Your task to perform on an android device: change the clock display to analog Image 0: 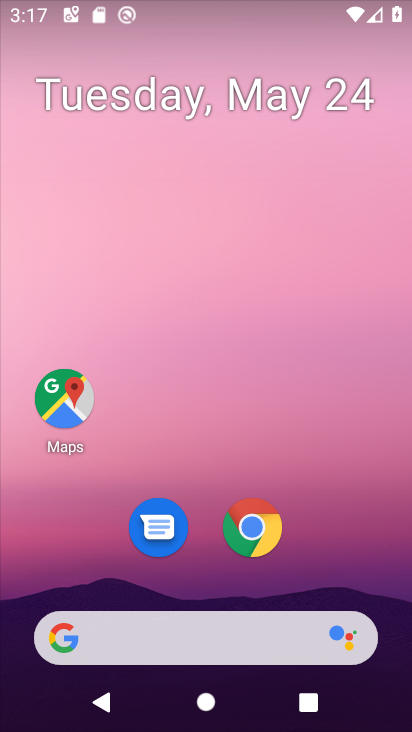
Step 0: drag from (346, 560) to (365, 5)
Your task to perform on an android device: change the clock display to analog Image 1: 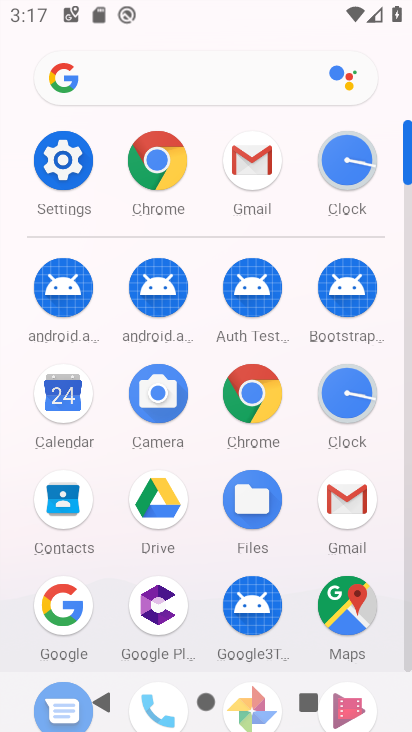
Step 1: click (349, 164)
Your task to perform on an android device: change the clock display to analog Image 2: 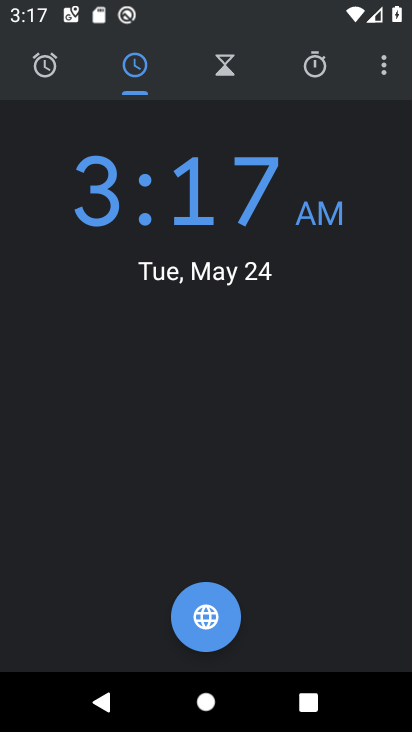
Step 2: click (389, 66)
Your task to perform on an android device: change the clock display to analog Image 3: 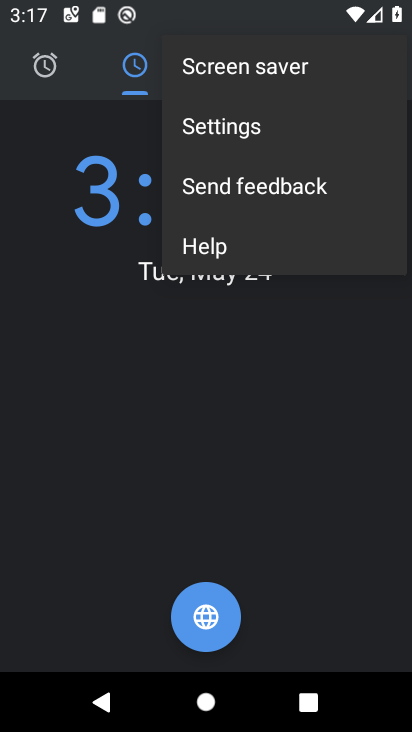
Step 3: click (224, 129)
Your task to perform on an android device: change the clock display to analog Image 4: 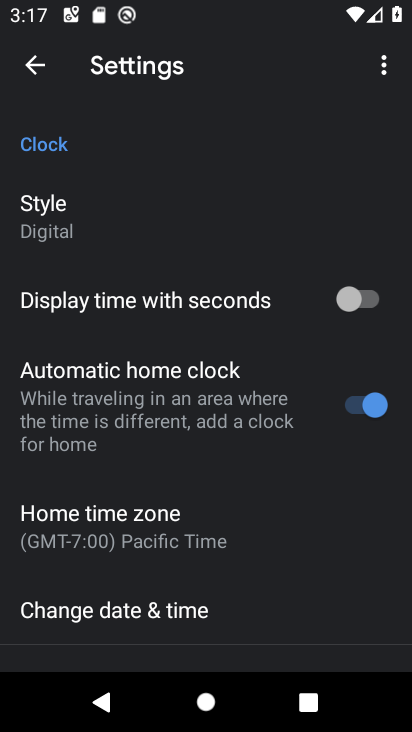
Step 4: click (57, 234)
Your task to perform on an android device: change the clock display to analog Image 5: 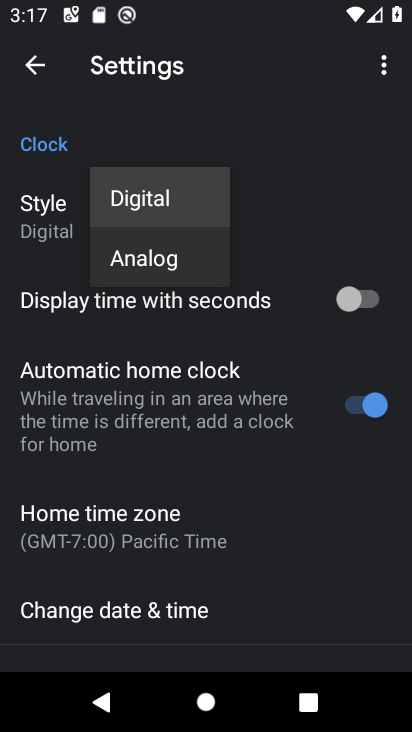
Step 5: click (109, 257)
Your task to perform on an android device: change the clock display to analog Image 6: 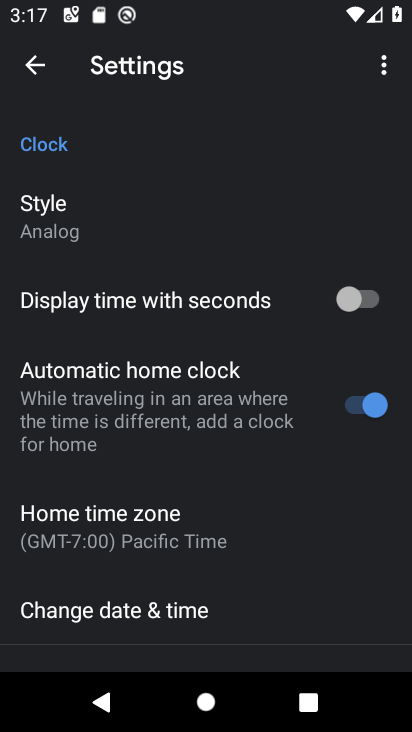
Step 6: task complete